Your task to perform on an android device: change the clock display to digital Image 0: 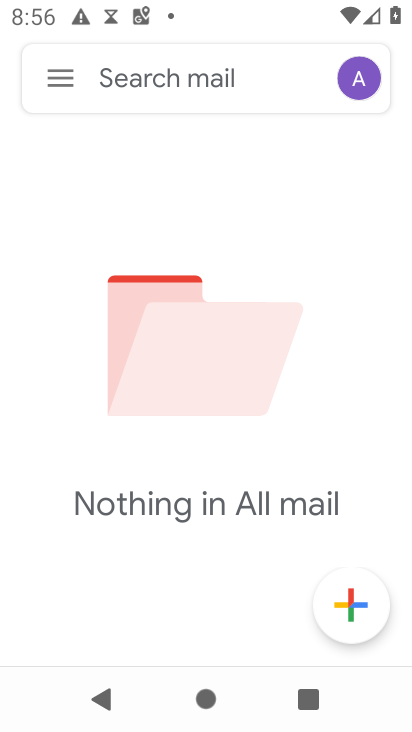
Step 0: press home button
Your task to perform on an android device: change the clock display to digital Image 1: 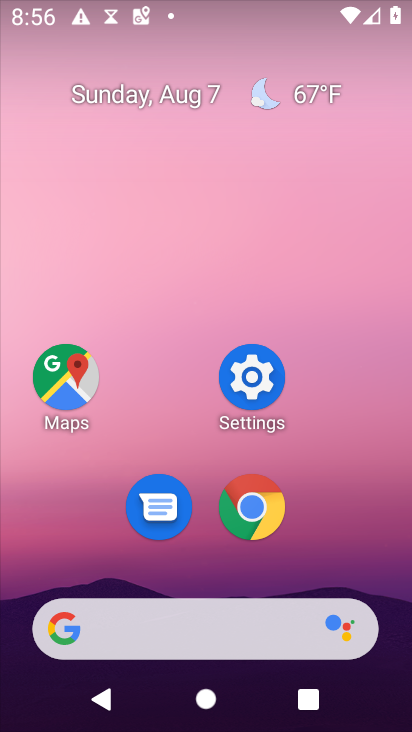
Step 1: drag from (189, 612) to (323, 6)
Your task to perform on an android device: change the clock display to digital Image 2: 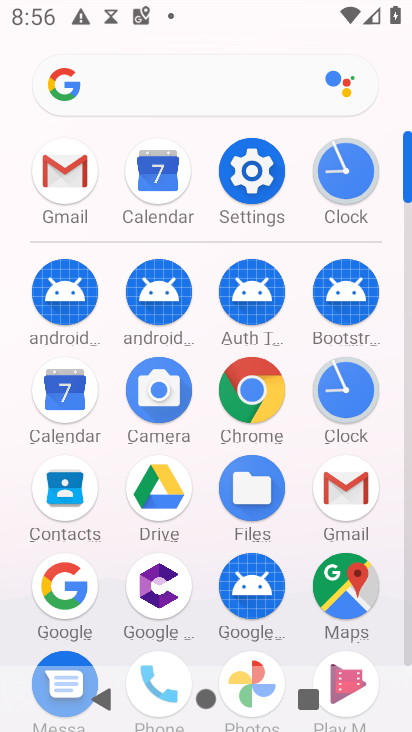
Step 2: click (352, 382)
Your task to perform on an android device: change the clock display to digital Image 3: 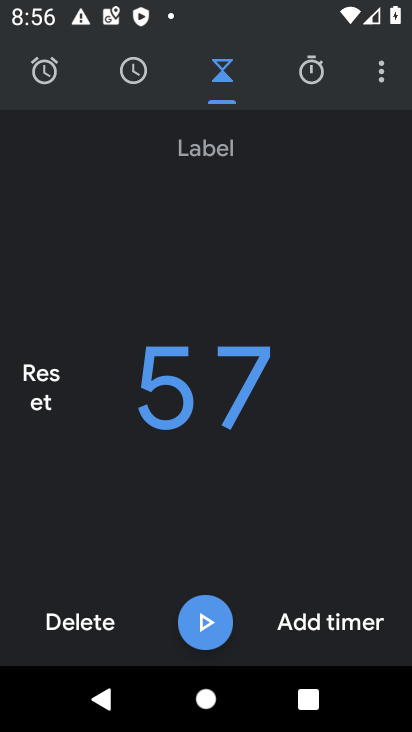
Step 3: click (385, 66)
Your task to perform on an android device: change the clock display to digital Image 4: 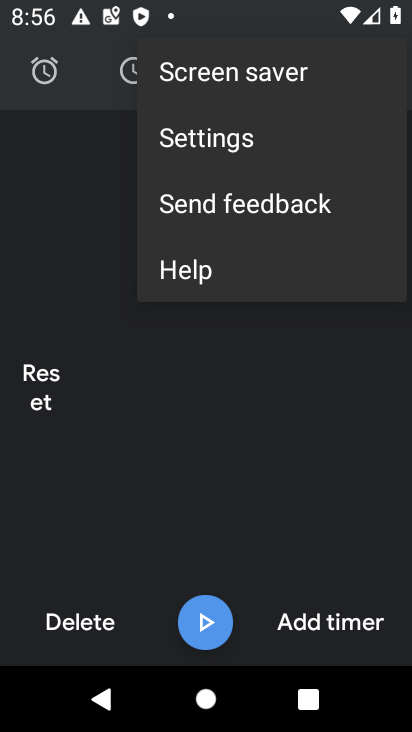
Step 4: click (263, 146)
Your task to perform on an android device: change the clock display to digital Image 5: 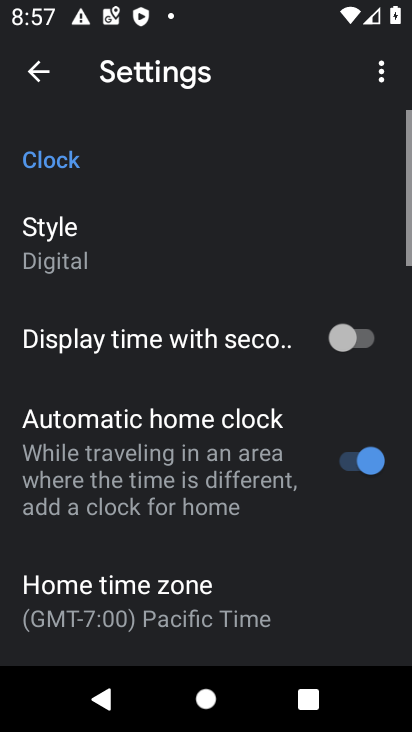
Step 5: click (76, 229)
Your task to perform on an android device: change the clock display to digital Image 6: 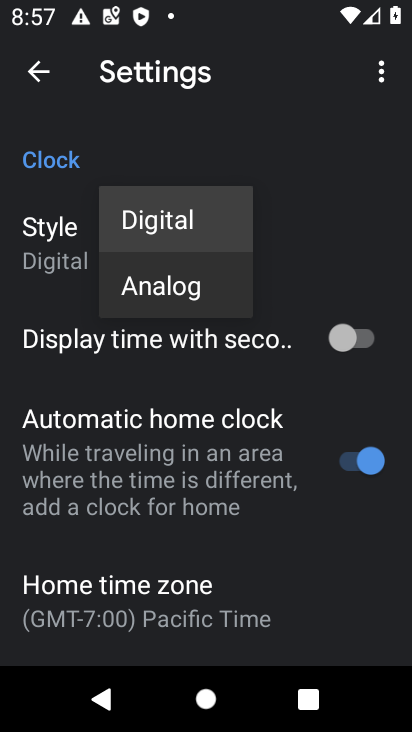
Step 6: task complete